Your task to perform on an android device: open chrome privacy settings Image 0: 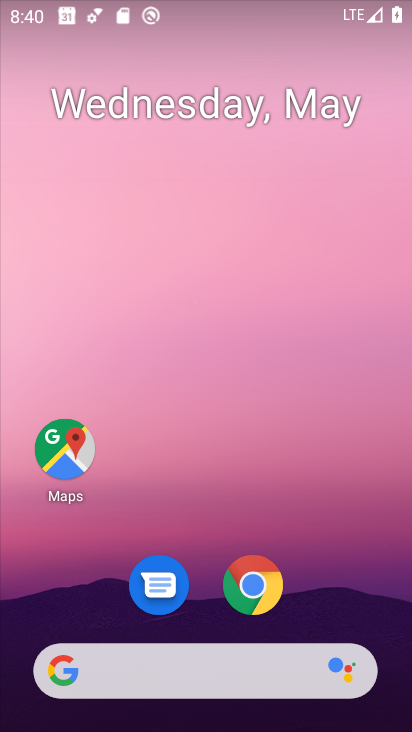
Step 0: click (275, 584)
Your task to perform on an android device: open chrome privacy settings Image 1: 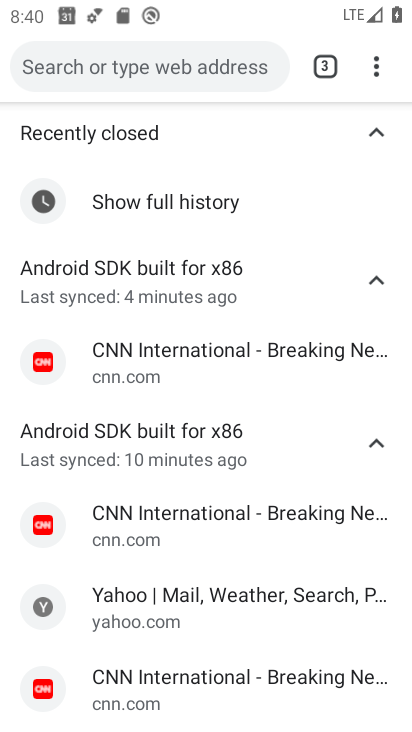
Step 1: click (372, 68)
Your task to perform on an android device: open chrome privacy settings Image 2: 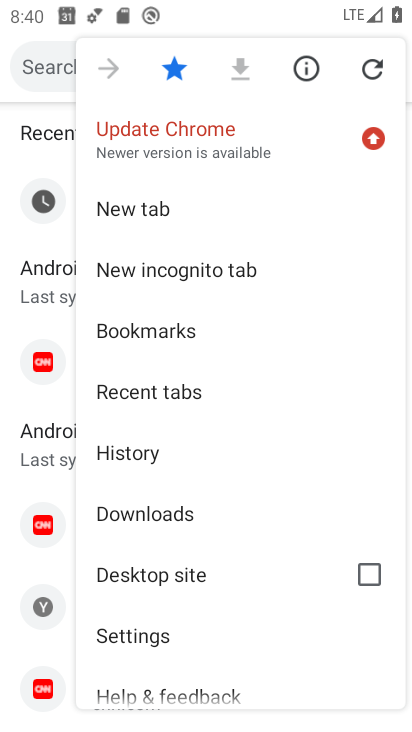
Step 2: click (222, 644)
Your task to perform on an android device: open chrome privacy settings Image 3: 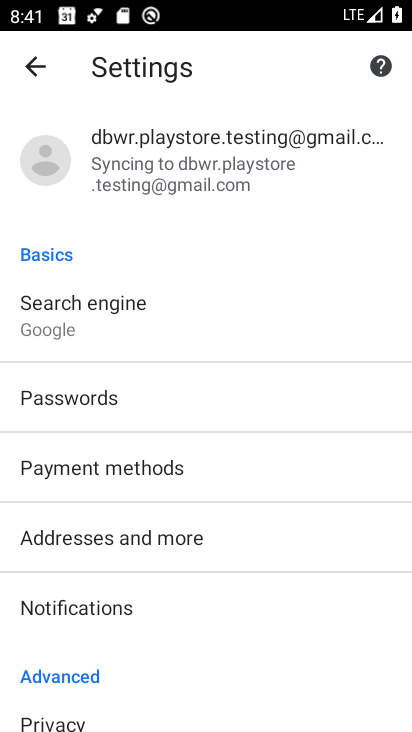
Step 3: click (179, 717)
Your task to perform on an android device: open chrome privacy settings Image 4: 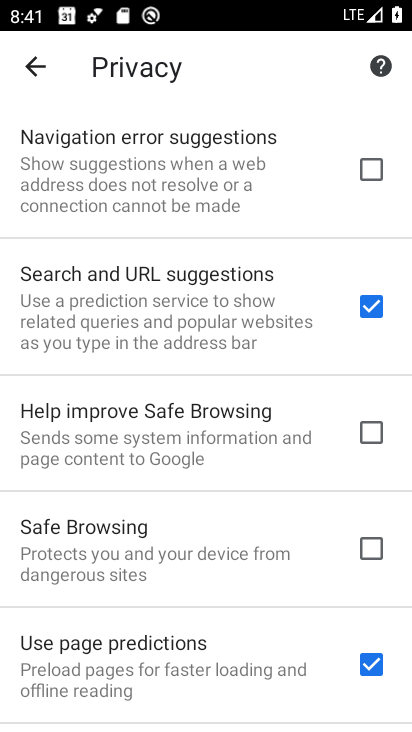
Step 4: task complete